Your task to perform on an android device: turn on location history Image 0: 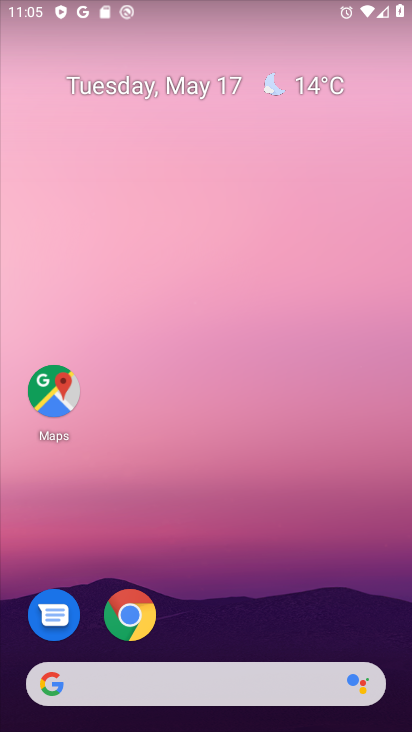
Step 0: drag from (328, 578) to (287, 141)
Your task to perform on an android device: turn on location history Image 1: 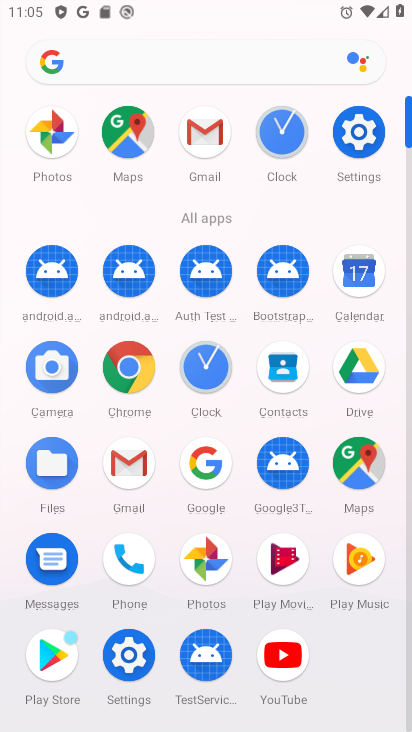
Step 1: click (368, 117)
Your task to perform on an android device: turn on location history Image 2: 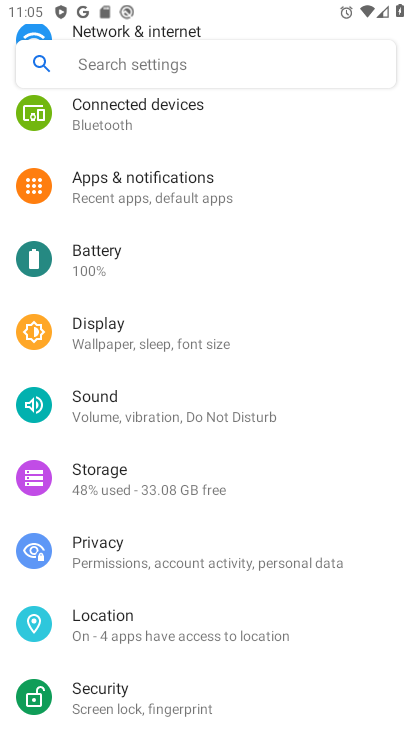
Step 2: drag from (190, 237) to (246, 552)
Your task to perform on an android device: turn on location history Image 3: 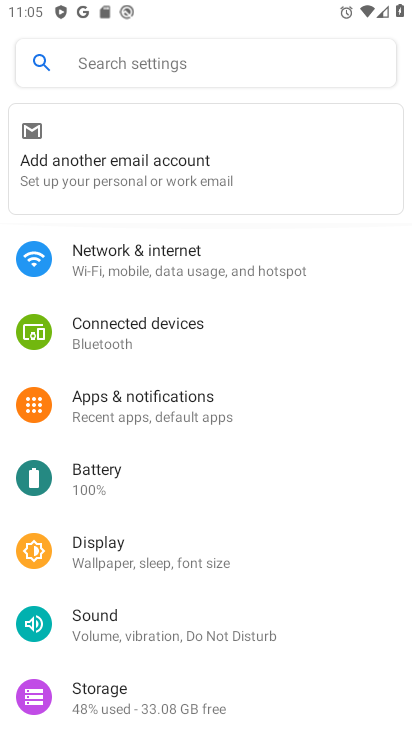
Step 3: drag from (246, 545) to (319, 261)
Your task to perform on an android device: turn on location history Image 4: 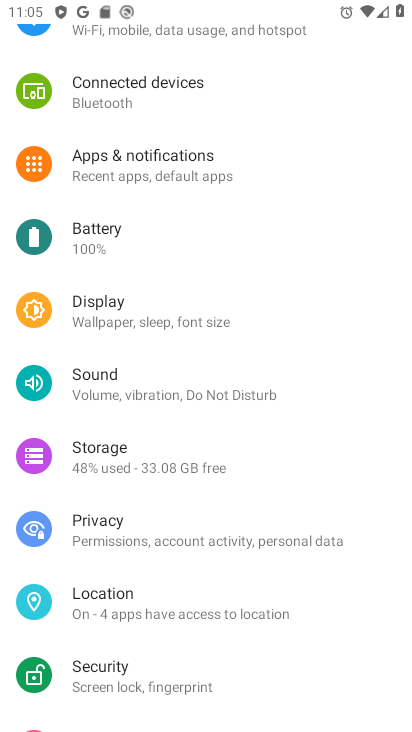
Step 4: click (161, 541)
Your task to perform on an android device: turn on location history Image 5: 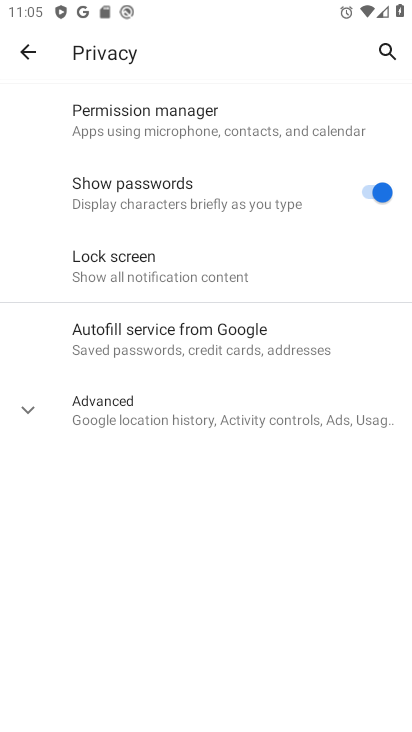
Step 5: click (30, 54)
Your task to perform on an android device: turn on location history Image 6: 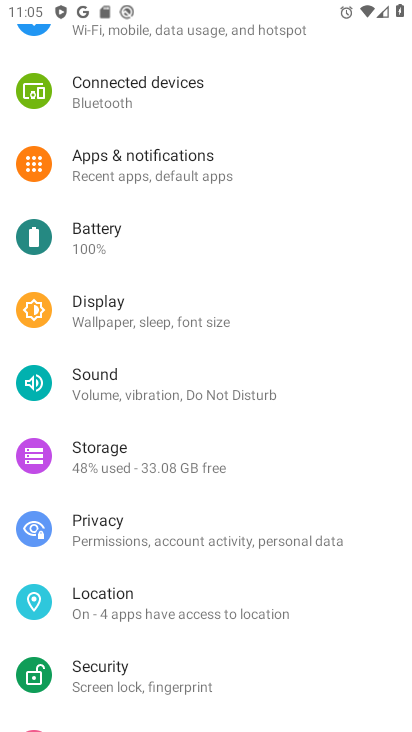
Step 6: click (171, 603)
Your task to perform on an android device: turn on location history Image 7: 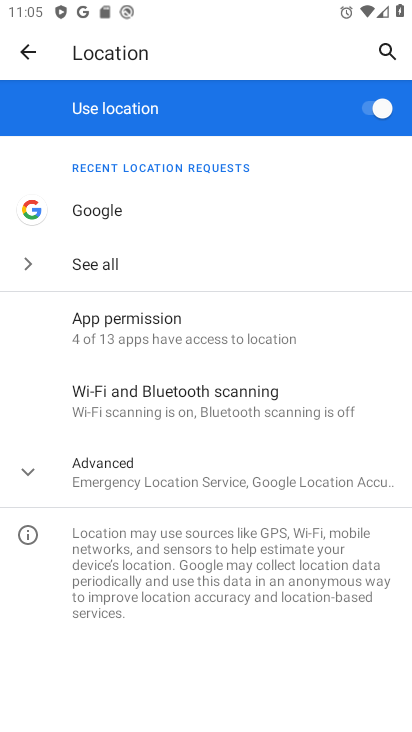
Step 7: click (150, 470)
Your task to perform on an android device: turn on location history Image 8: 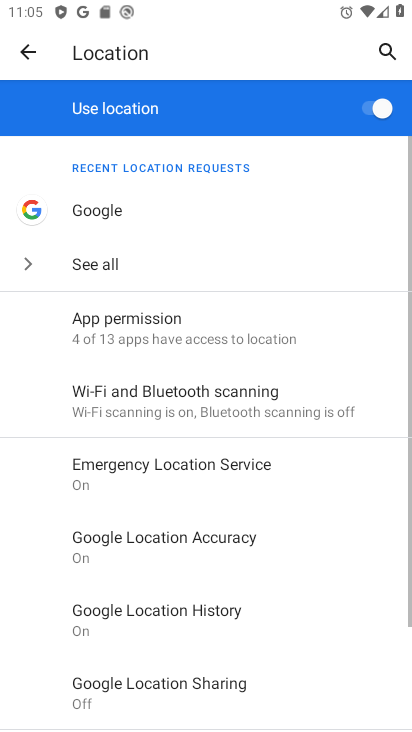
Step 8: drag from (314, 618) to (315, 242)
Your task to perform on an android device: turn on location history Image 9: 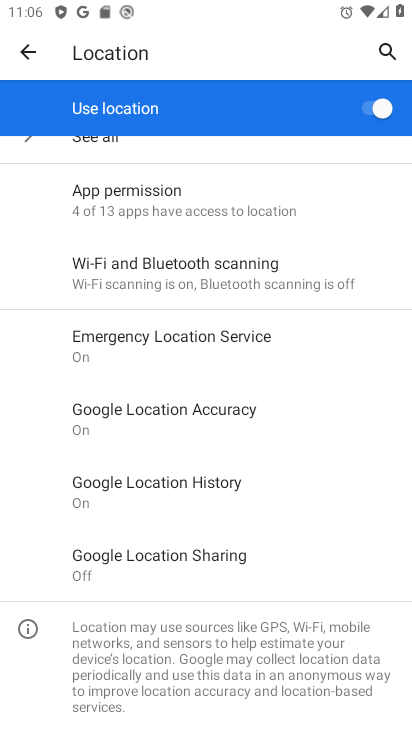
Step 9: click (227, 490)
Your task to perform on an android device: turn on location history Image 10: 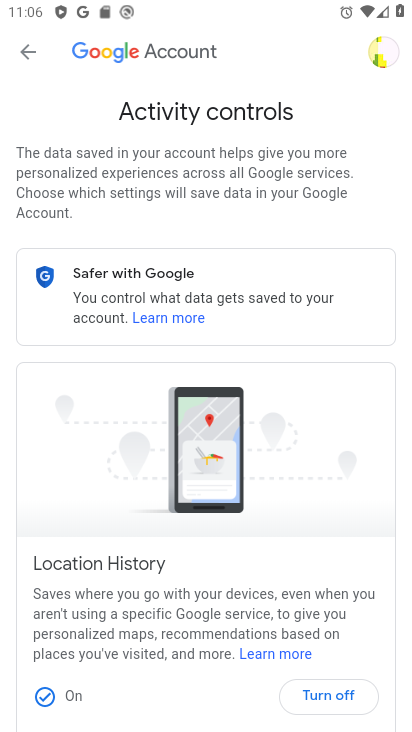
Step 10: task complete